Your task to perform on an android device: turn notification dots off Image 0: 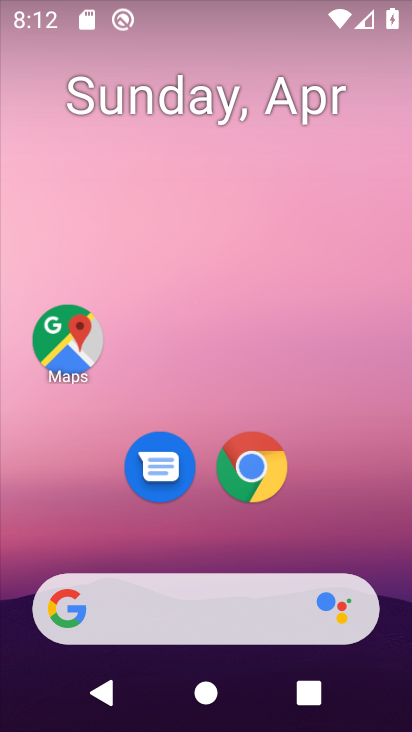
Step 0: drag from (222, 551) to (242, 121)
Your task to perform on an android device: turn notification dots off Image 1: 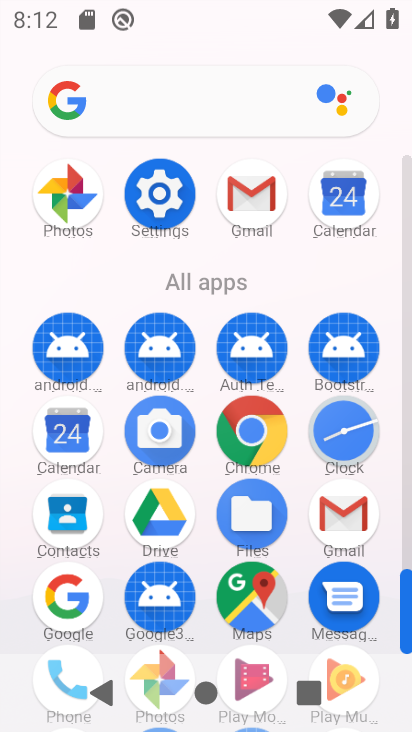
Step 1: click (175, 173)
Your task to perform on an android device: turn notification dots off Image 2: 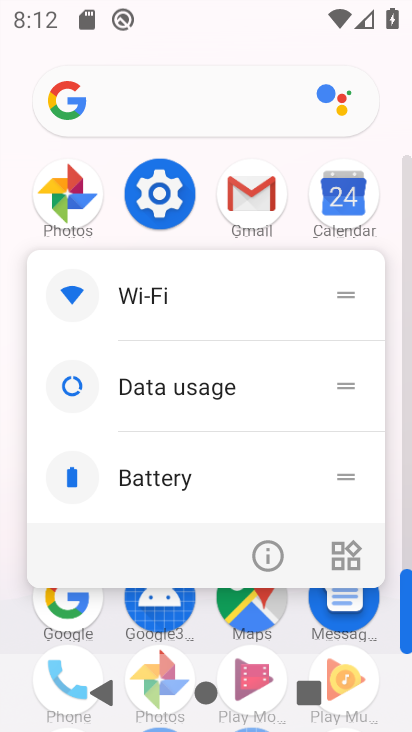
Step 2: click (163, 190)
Your task to perform on an android device: turn notification dots off Image 3: 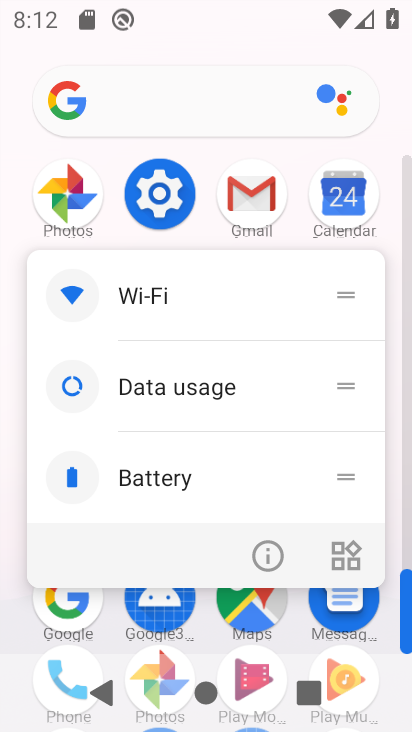
Step 3: click (163, 190)
Your task to perform on an android device: turn notification dots off Image 4: 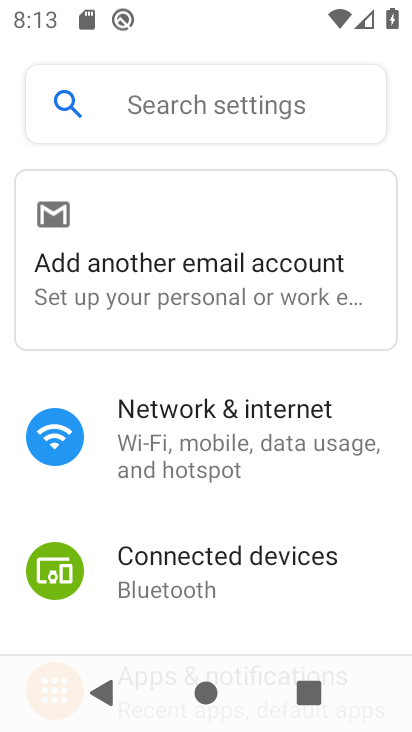
Step 4: drag from (295, 531) to (254, 418)
Your task to perform on an android device: turn notification dots off Image 5: 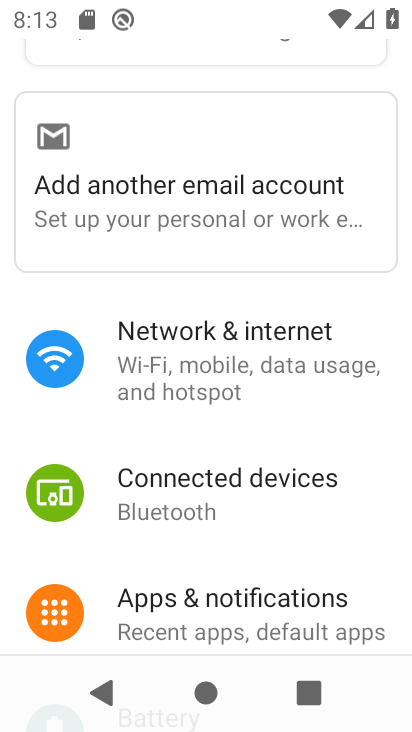
Step 5: click (268, 608)
Your task to perform on an android device: turn notification dots off Image 6: 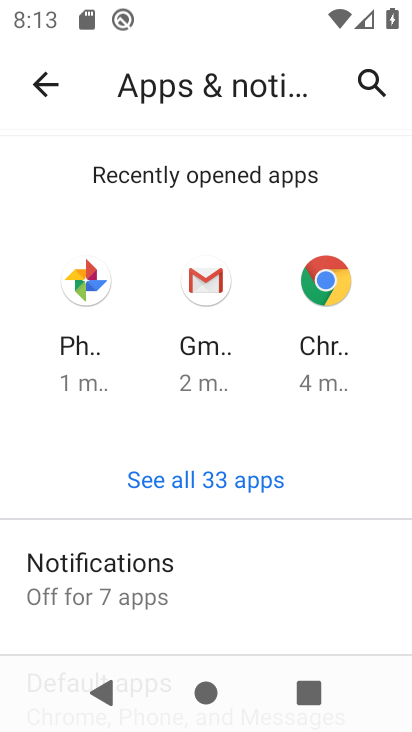
Step 6: click (247, 570)
Your task to perform on an android device: turn notification dots off Image 7: 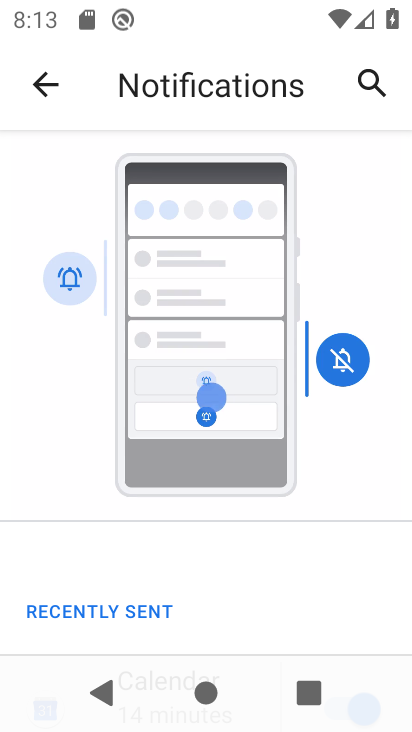
Step 7: drag from (239, 569) to (195, 316)
Your task to perform on an android device: turn notification dots off Image 8: 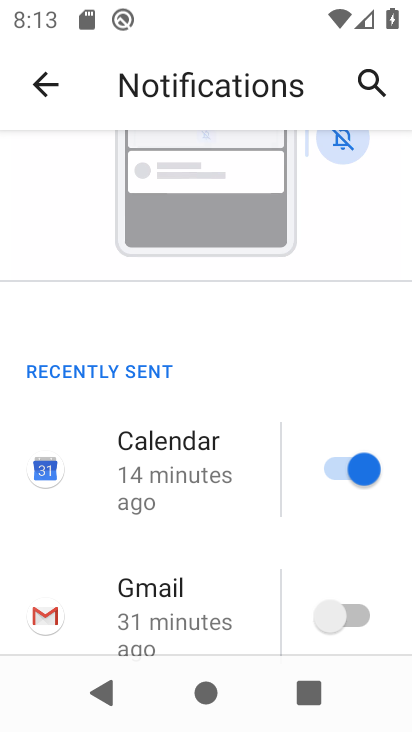
Step 8: drag from (221, 513) to (159, 309)
Your task to perform on an android device: turn notification dots off Image 9: 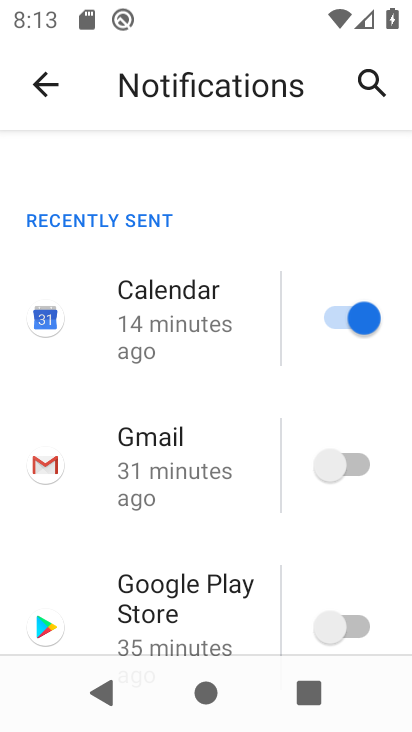
Step 9: drag from (174, 519) to (112, 294)
Your task to perform on an android device: turn notification dots off Image 10: 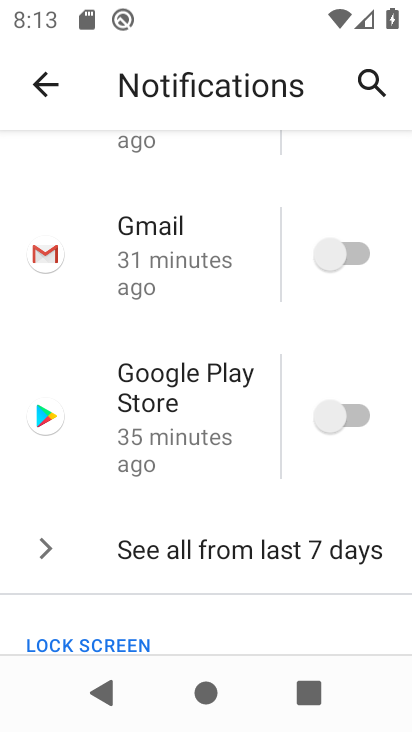
Step 10: drag from (138, 535) to (74, 300)
Your task to perform on an android device: turn notification dots off Image 11: 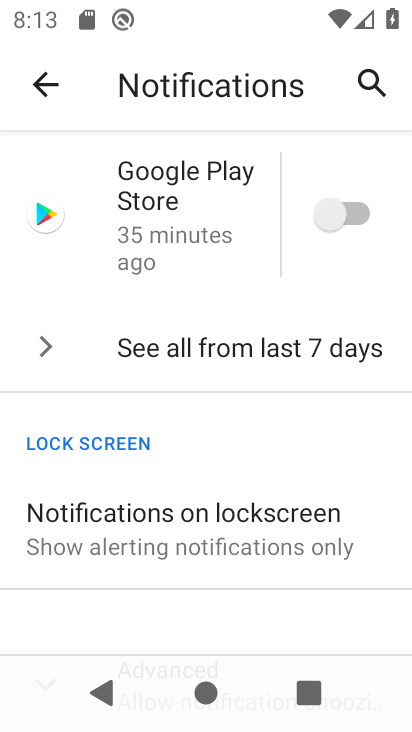
Step 11: drag from (162, 556) to (142, 318)
Your task to perform on an android device: turn notification dots off Image 12: 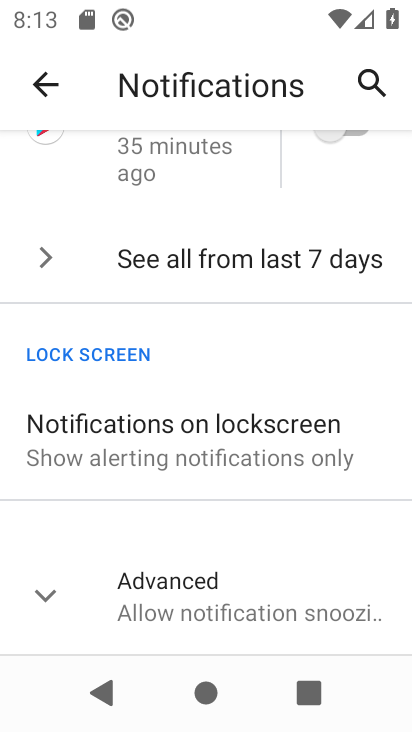
Step 12: click (201, 582)
Your task to perform on an android device: turn notification dots off Image 13: 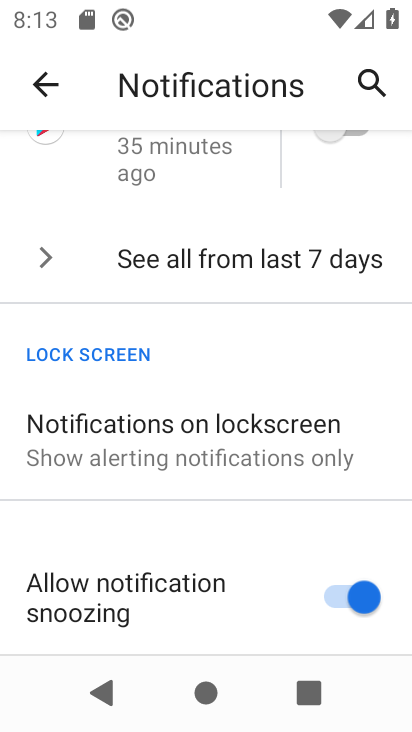
Step 13: task complete